Your task to perform on an android device: turn off picture-in-picture Image 0: 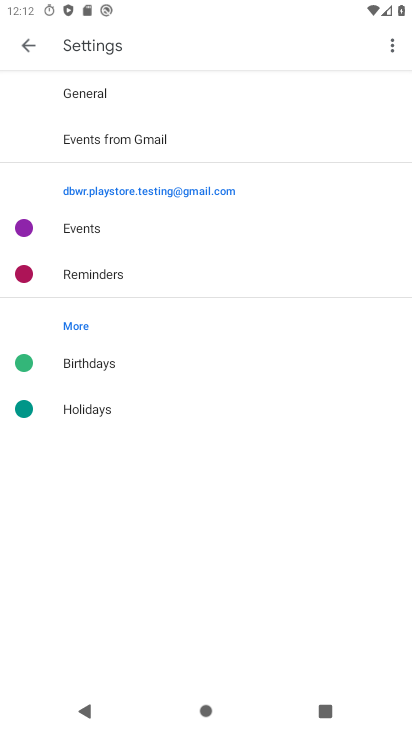
Step 0: press home button
Your task to perform on an android device: turn off picture-in-picture Image 1: 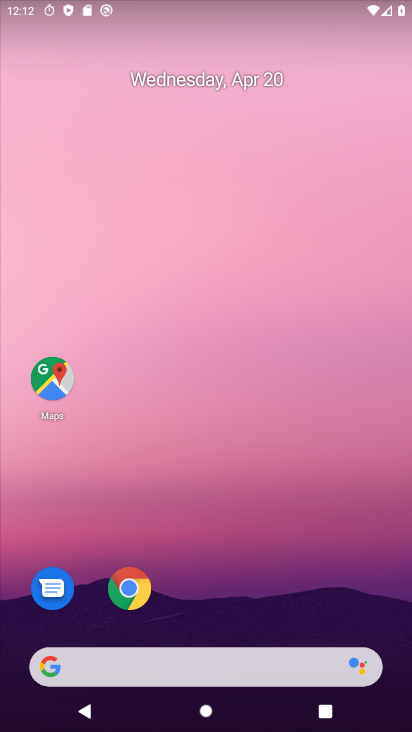
Step 1: drag from (224, 622) to (217, 41)
Your task to perform on an android device: turn off picture-in-picture Image 2: 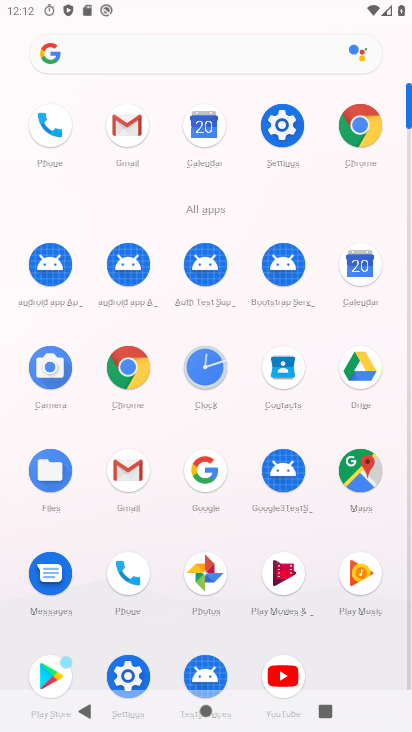
Step 2: click (272, 128)
Your task to perform on an android device: turn off picture-in-picture Image 3: 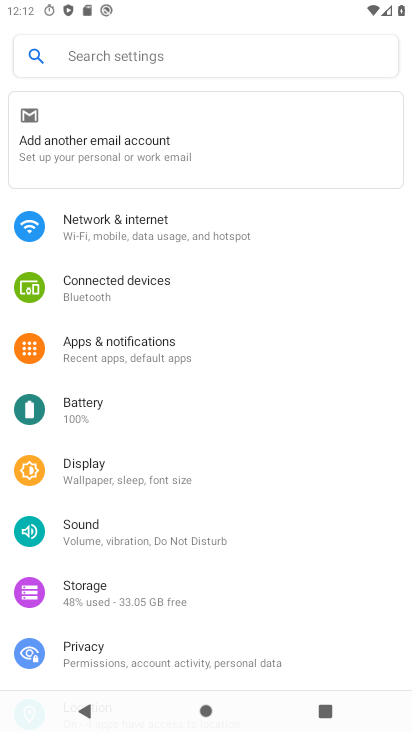
Step 3: drag from (173, 543) to (149, 280)
Your task to perform on an android device: turn off picture-in-picture Image 4: 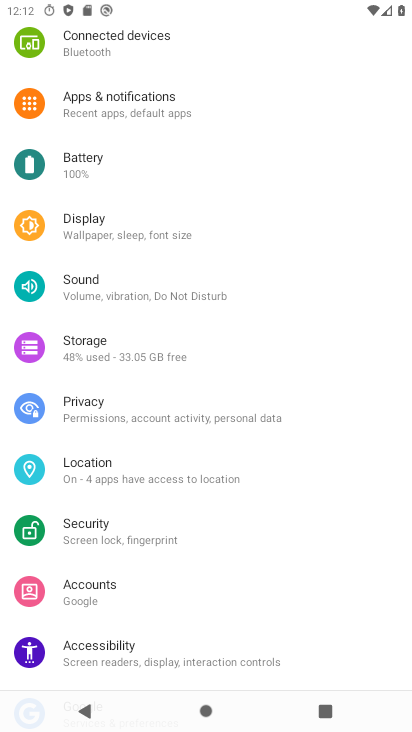
Step 4: click (90, 111)
Your task to perform on an android device: turn off picture-in-picture Image 5: 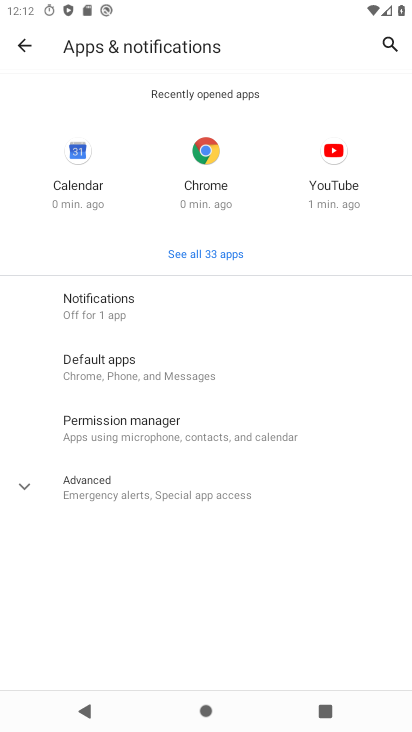
Step 5: click (105, 480)
Your task to perform on an android device: turn off picture-in-picture Image 6: 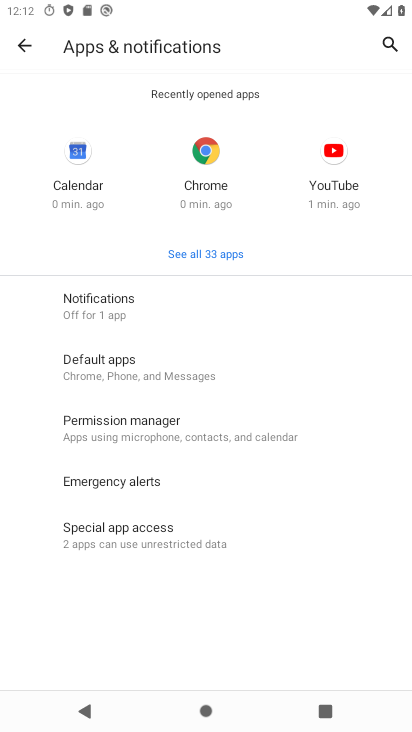
Step 6: click (111, 523)
Your task to perform on an android device: turn off picture-in-picture Image 7: 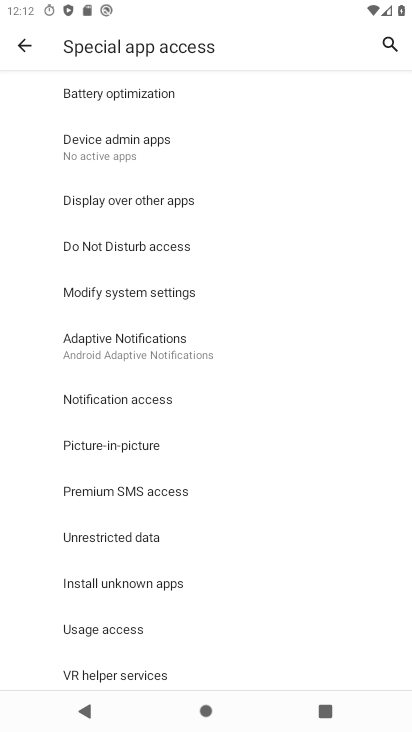
Step 7: click (101, 443)
Your task to perform on an android device: turn off picture-in-picture Image 8: 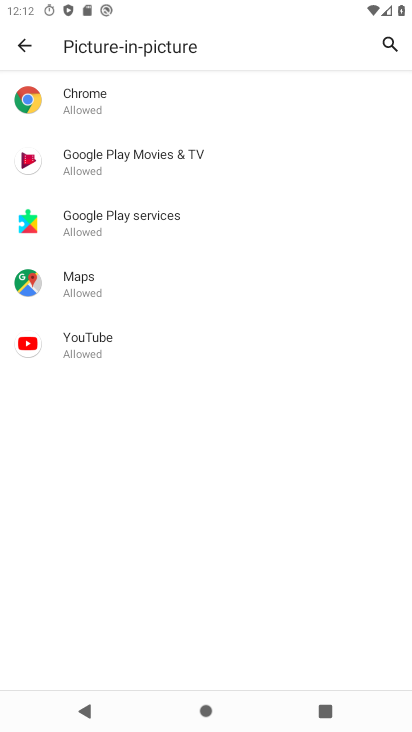
Step 8: task complete